Your task to perform on an android device: Open Chrome and go to settings Image 0: 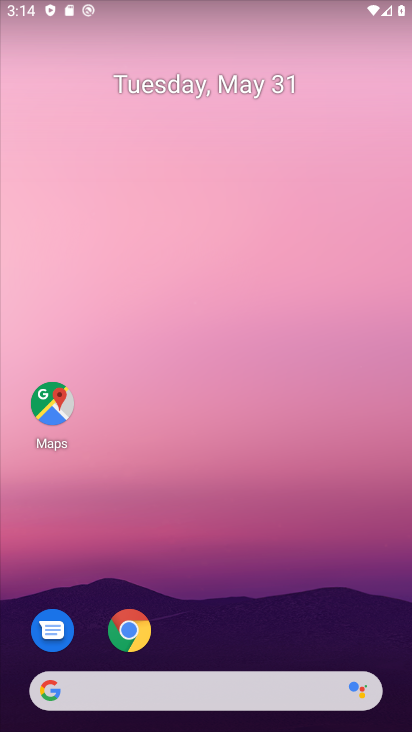
Step 0: drag from (302, 719) to (374, 144)
Your task to perform on an android device: Open Chrome and go to settings Image 1: 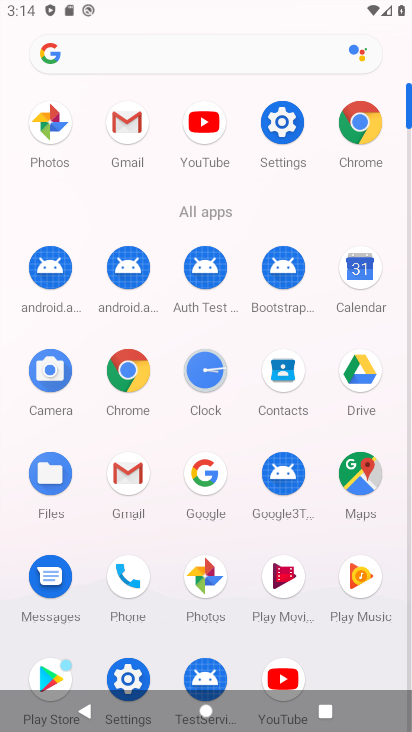
Step 1: click (118, 360)
Your task to perform on an android device: Open Chrome and go to settings Image 2: 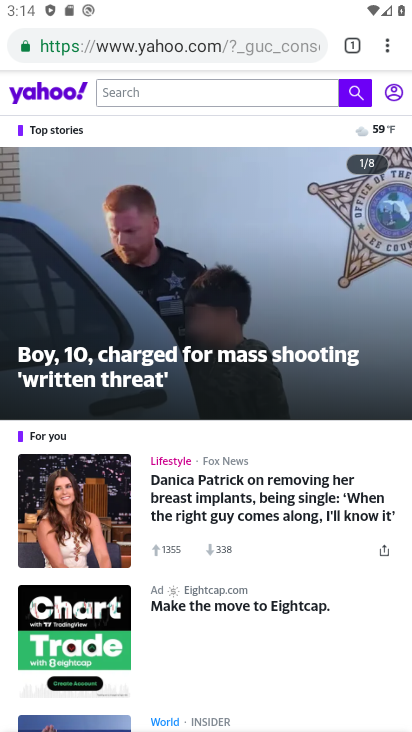
Step 2: task complete